Your task to perform on an android device: open app "Indeed Job Search" Image 0: 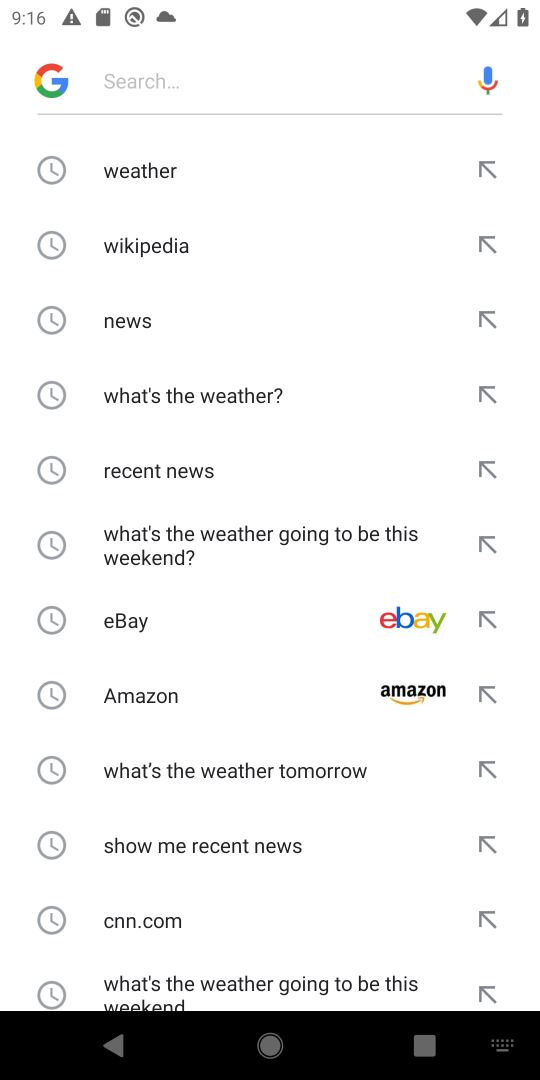
Step 0: press home button
Your task to perform on an android device: open app "Indeed Job Search" Image 1: 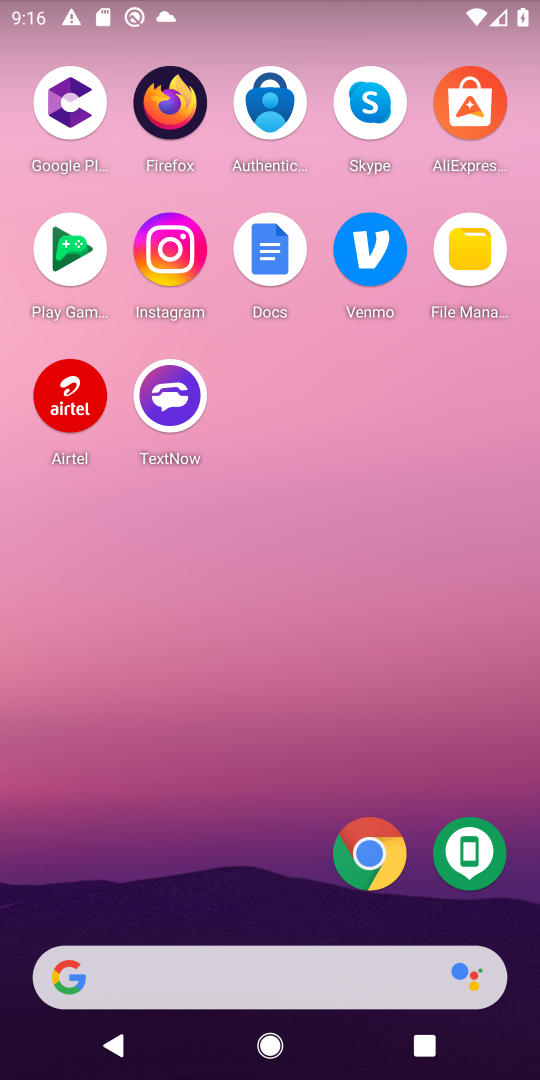
Step 1: drag from (237, 784) to (236, 139)
Your task to perform on an android device: open app "Indeed Job Search" Image 2: 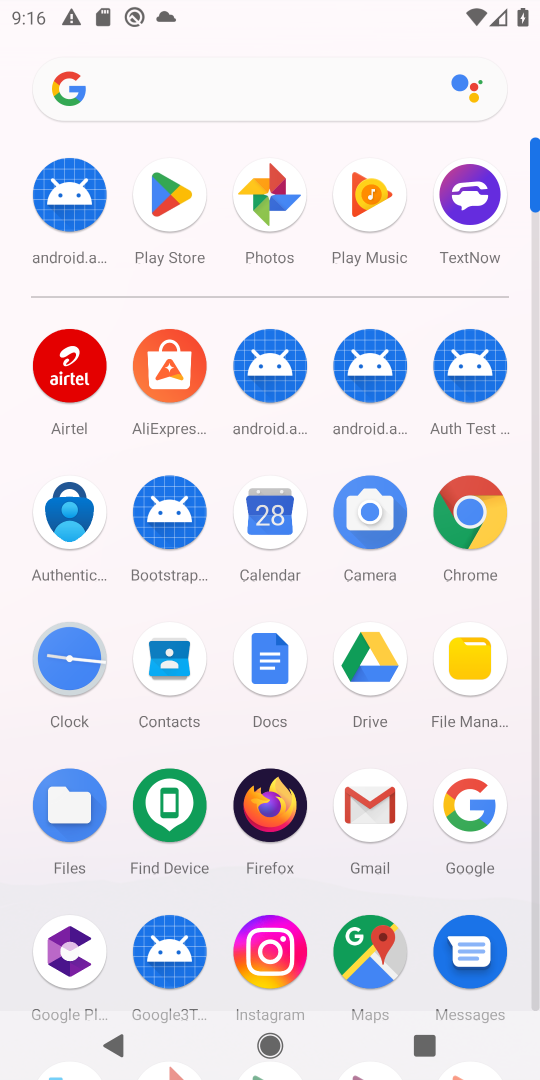
Step 2: click (153, 212)
Your task to perform on an android device: open app "Indeed Job Search" Image 3: 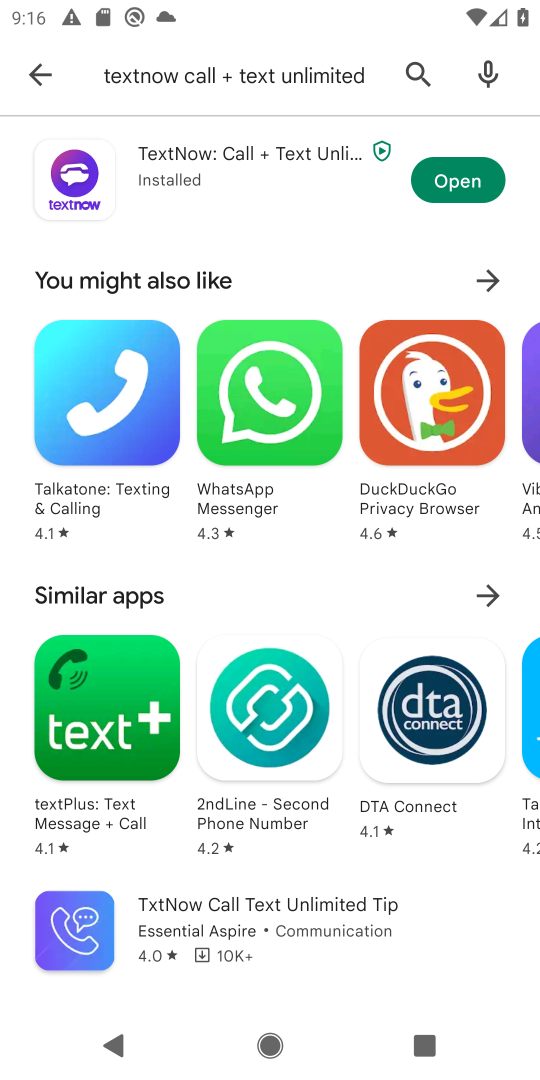
Step 3: click (42, 62)
Your task to perform on an android device: open app "Indeed Job Search" Image 4: 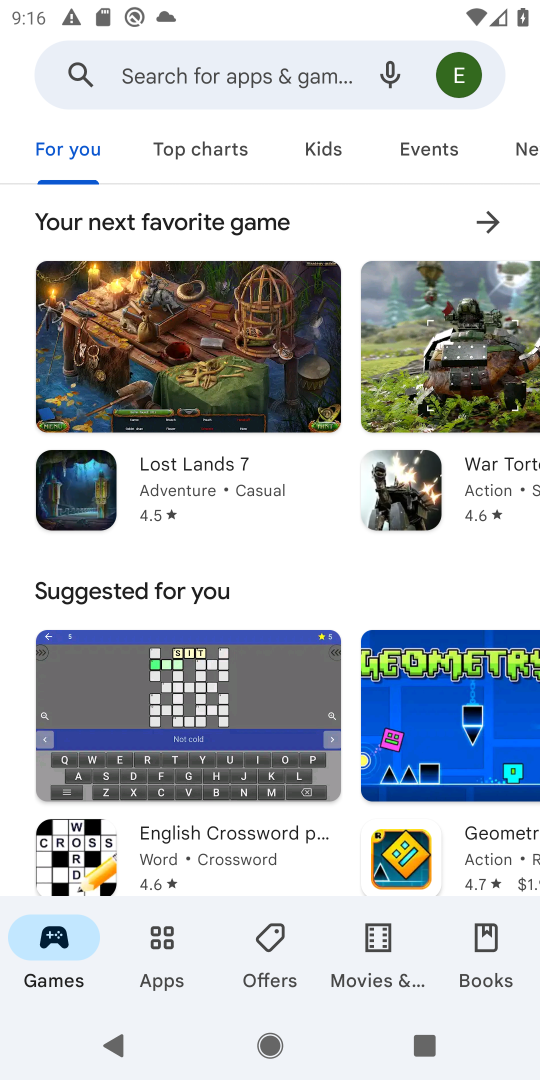
Step 4: click (140, 63)
Your task to perform on an android device: open app "Indeed Job Search" Image 5: 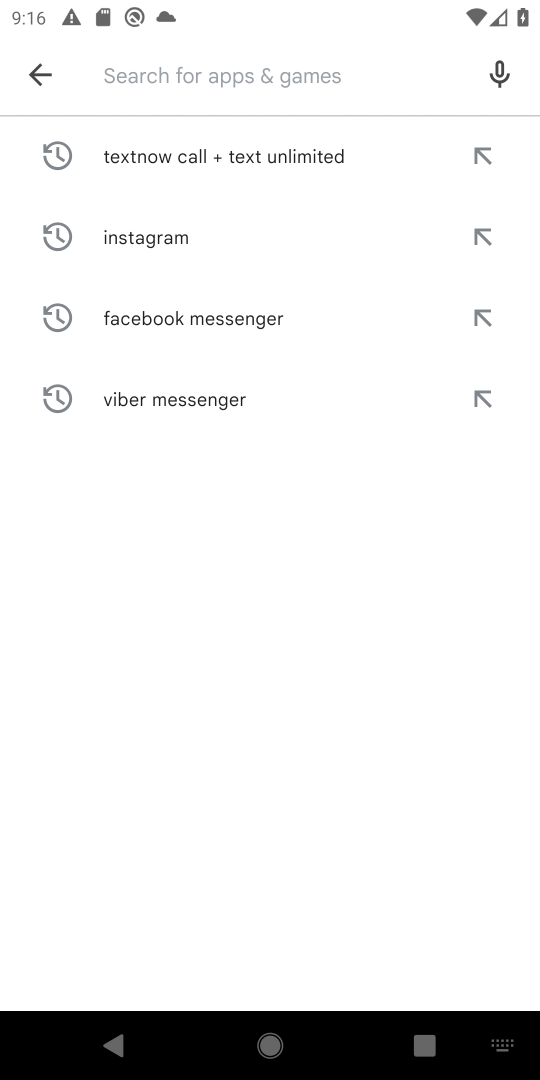
Step 5: type "Indeed Job Search"
Your task to perform on an android device: open app "Indeed Job Search" Image 6: 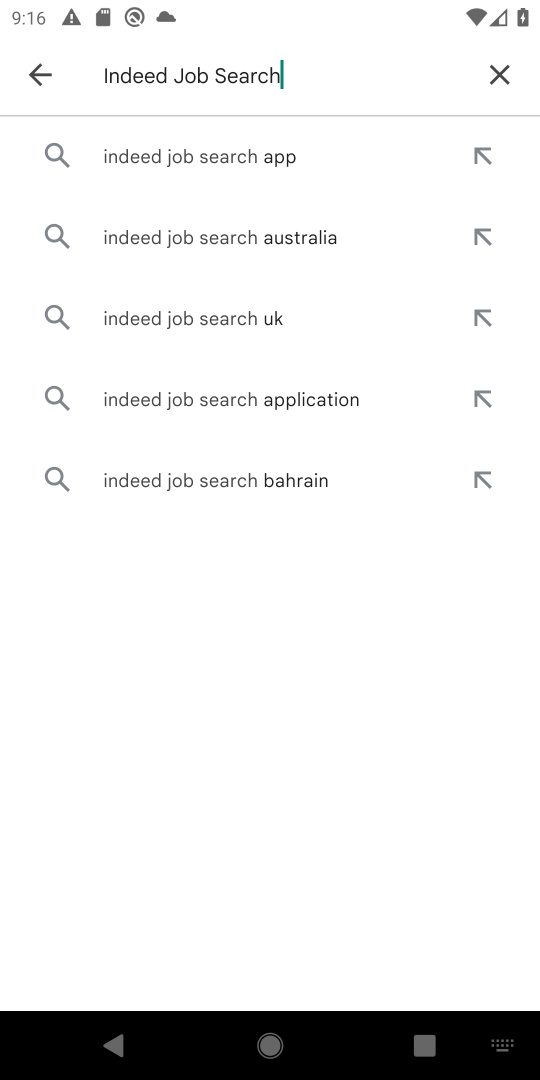
Step 6: click (141, 158)
Your task to perform on an android device: open app "Indeed Job Search" Image 7: 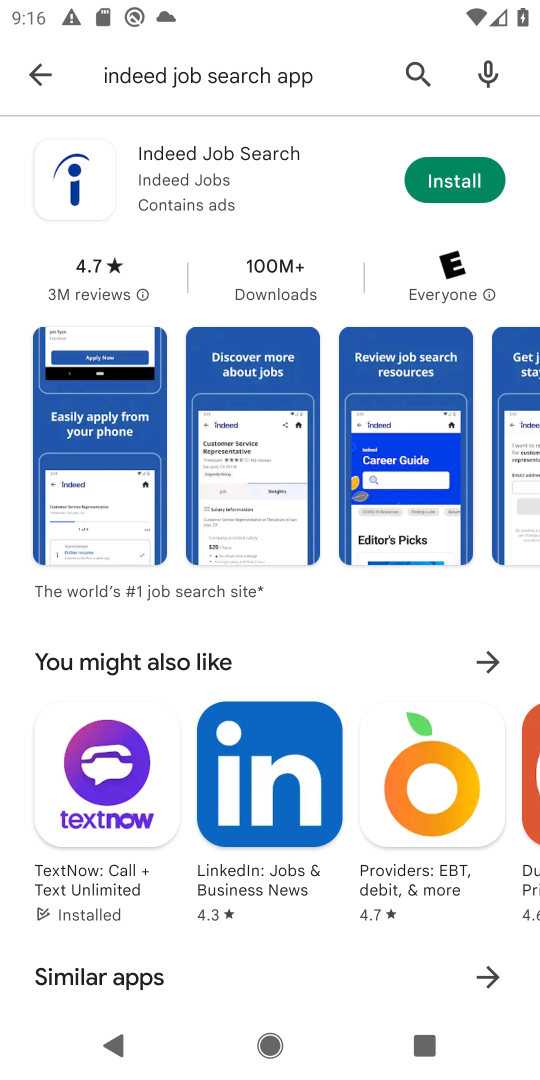
Step 7: click (445, 173)
Your task to perform on an android device: open app "Indeed Job Search" Image 8: 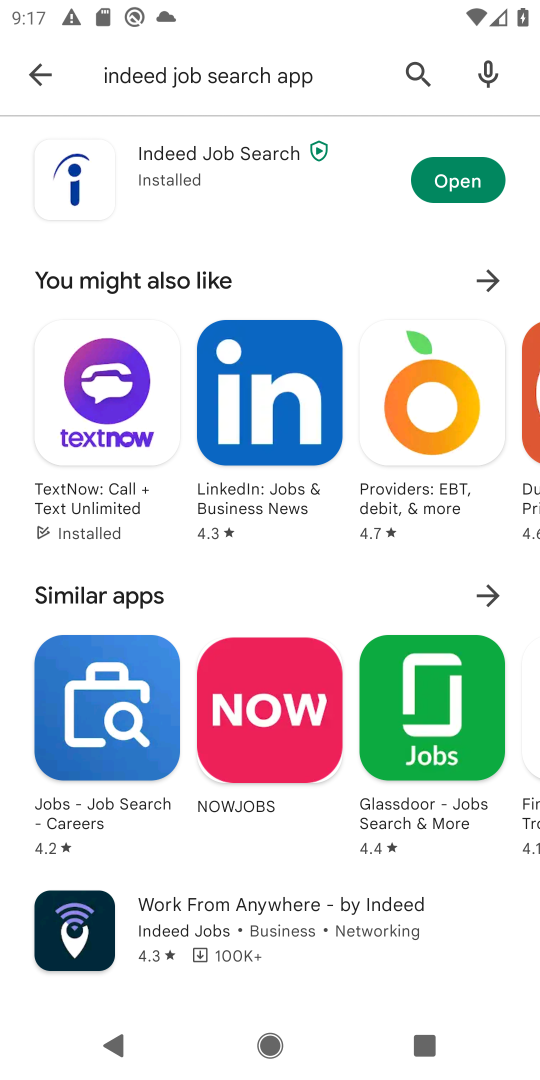
Step 8: click (482, 192)
Your task to perform on an android device: open app "Indeed Job Search" Image 9: 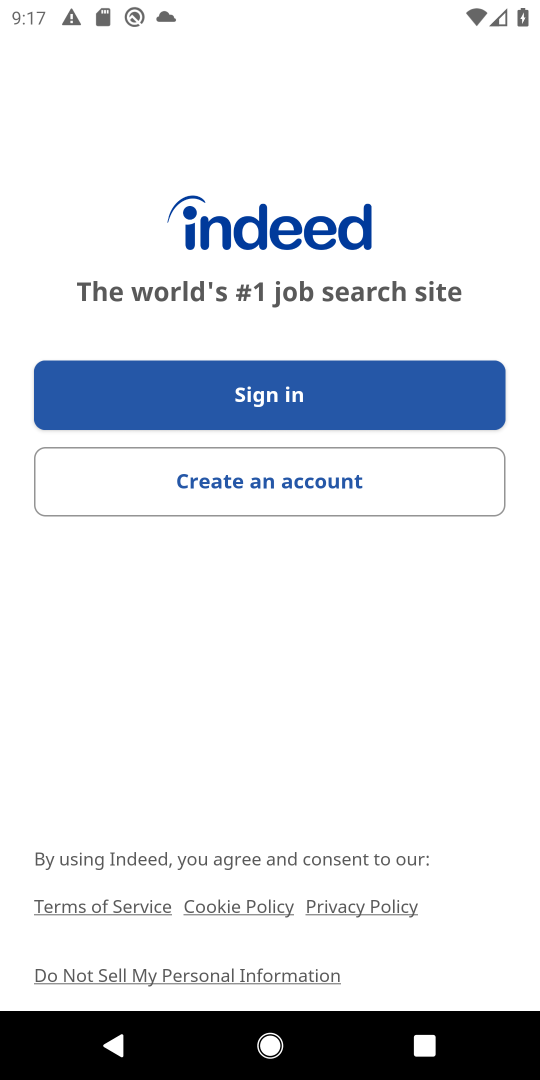
Step 9: task complete